Your task to perform on an android device: open app "Google Docs" Image 0: 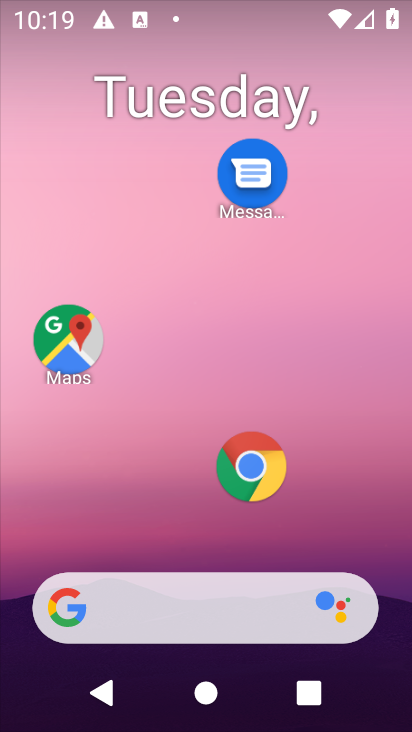
Step 0: drag from (138, 535) to (190, 39)
Your task to perform on an android device: open app "Google Docs" Image 1: 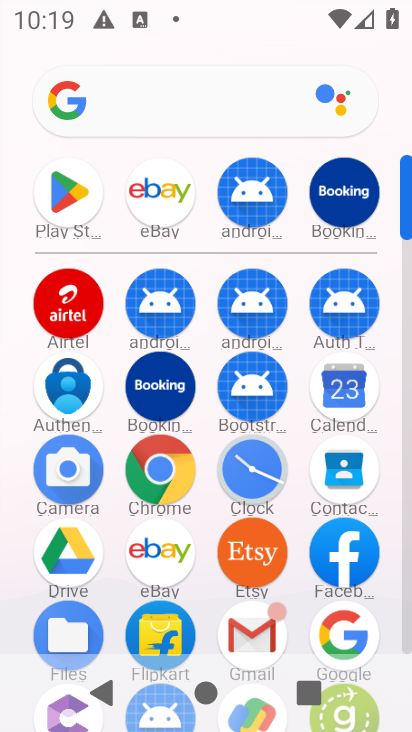
Step 1: click (61, 186)
Your task to perform on an android device: open app "Google Docs" Image 2: 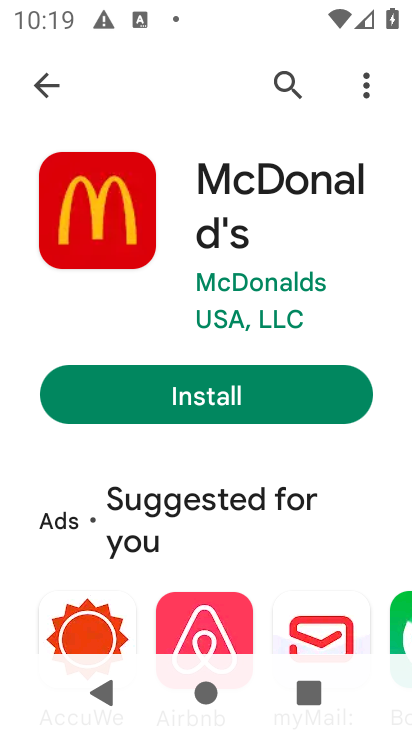
Step 2: click (275, 73)
Your task to perform on an android device: open app "Google Docs" Image 3: 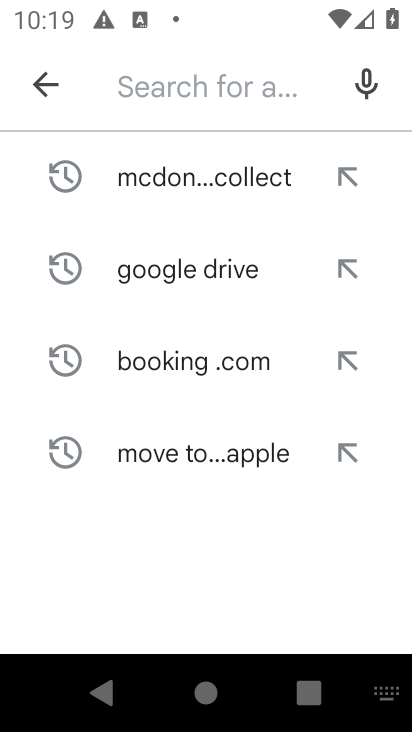
Step 3: click (131, 93)
Your task to perform on an android device: open app "Google Docs" Image 4: 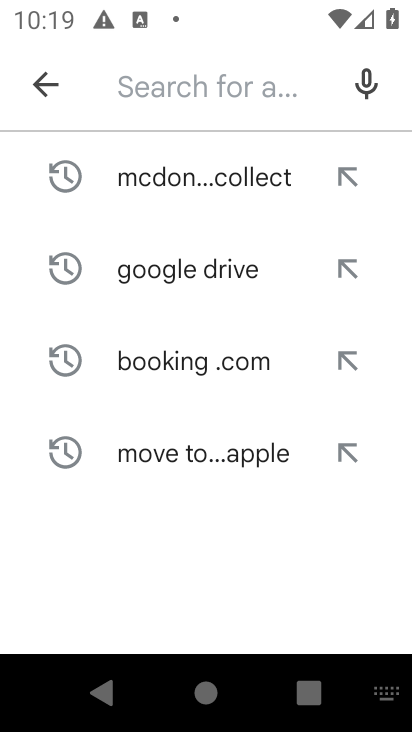
Step 4: type "Google Docs"
Your task to perform on an android device: open app "Google Docs" Image 5: 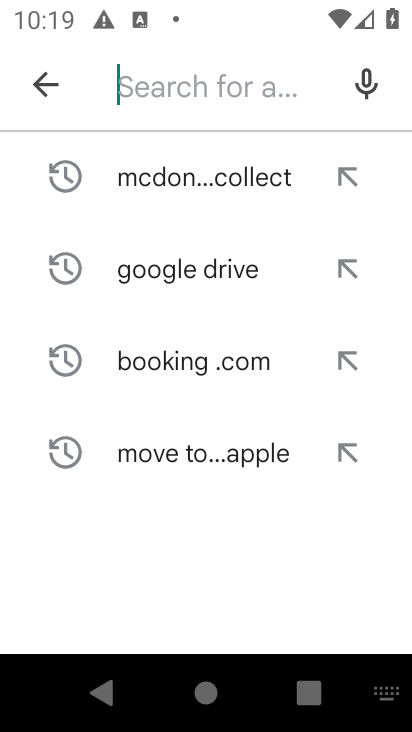
Step 5: click (211, 587)
Your task to perform on an android device: open app "Google Docs" Image 6: 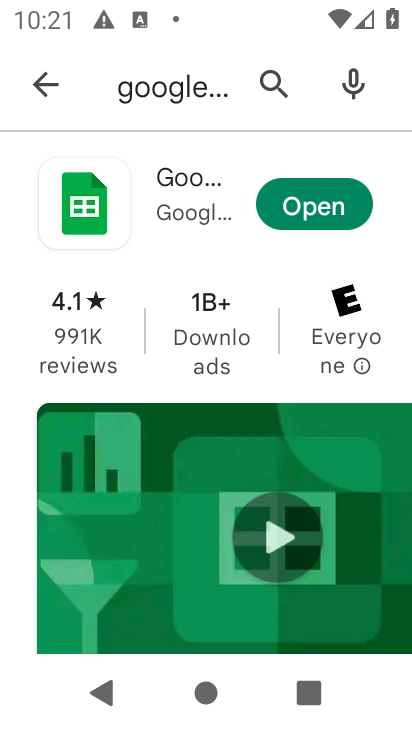
Step 6: click (297, 208)
Your task to perform on an android device: open app "Google Docs" Image 7: 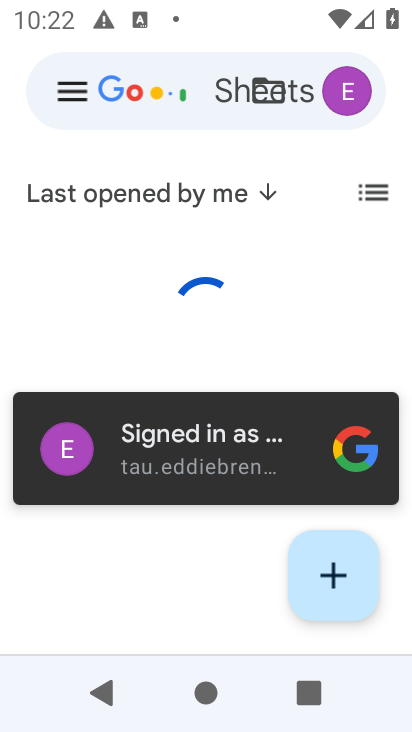
Step 7: press back button
Your task to perform on an android device: open app "Google Docs" Image 8: 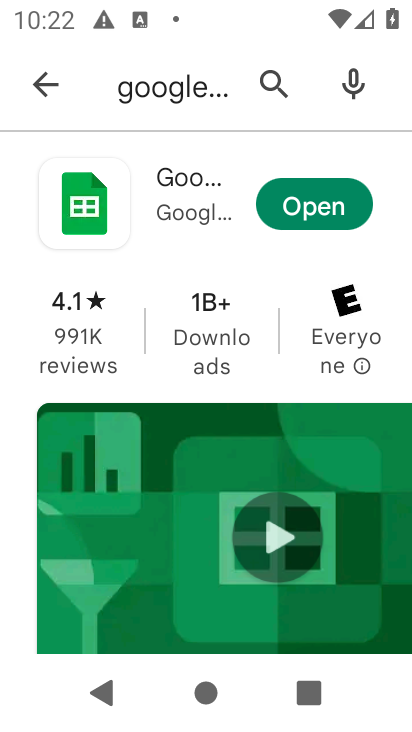
Step 8: click (253, 76)
Your task to perform on an android device: open app "Google Docs" Image 9: 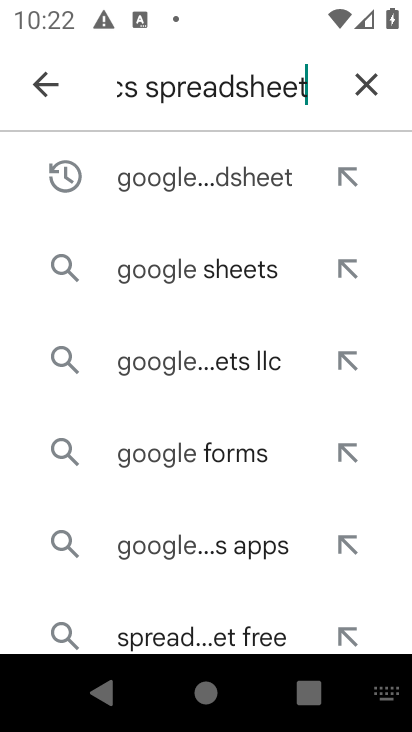
Step 9: click (363, 84)
Your task to perform on an android device: open app "Google Docs" Image 10: 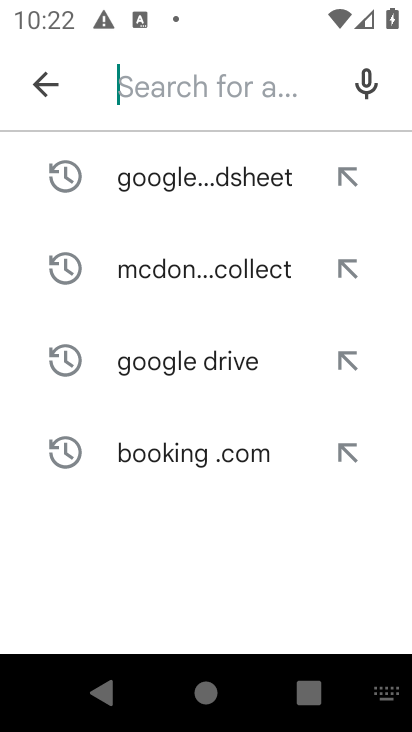
Step 10: click (172, 88)
Your task to perform on an android device: open app "Google Docs" Image 11: 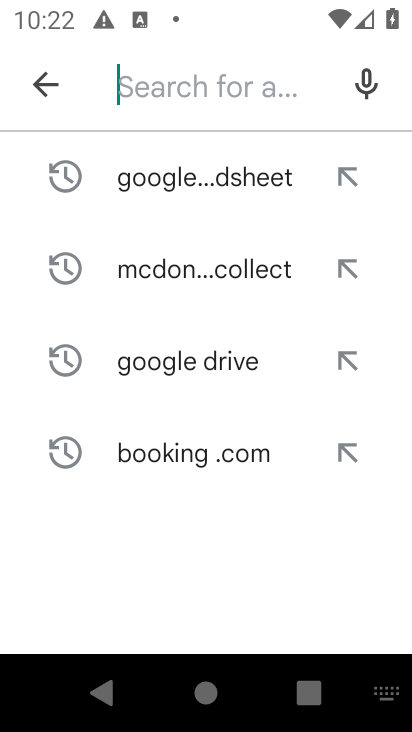
Step 11: type "Google Docs"
Your task to perform on an android device: open app "Google Docs" Image 12: 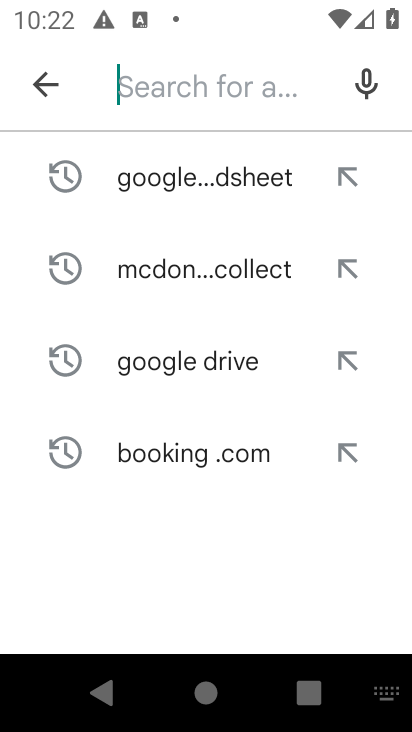
Step 12: click (148, 601)
Your task to perform on an android device: open app "Google Docs" Image 13: 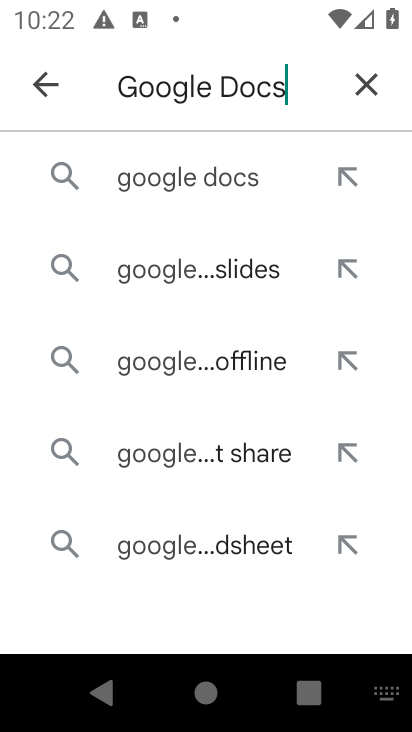
Step 13: click (209, 177)
Your task to perform on an android device: open app "Google Docs" Image 14: 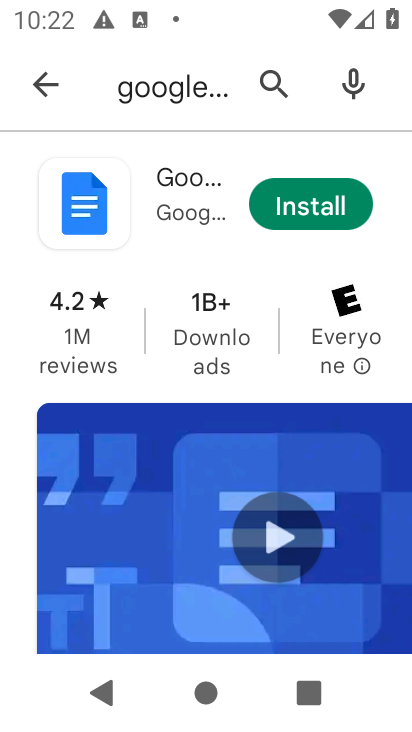
Step 14: task complete